Your task to perform on an android device: Open CNN.com Image 0: 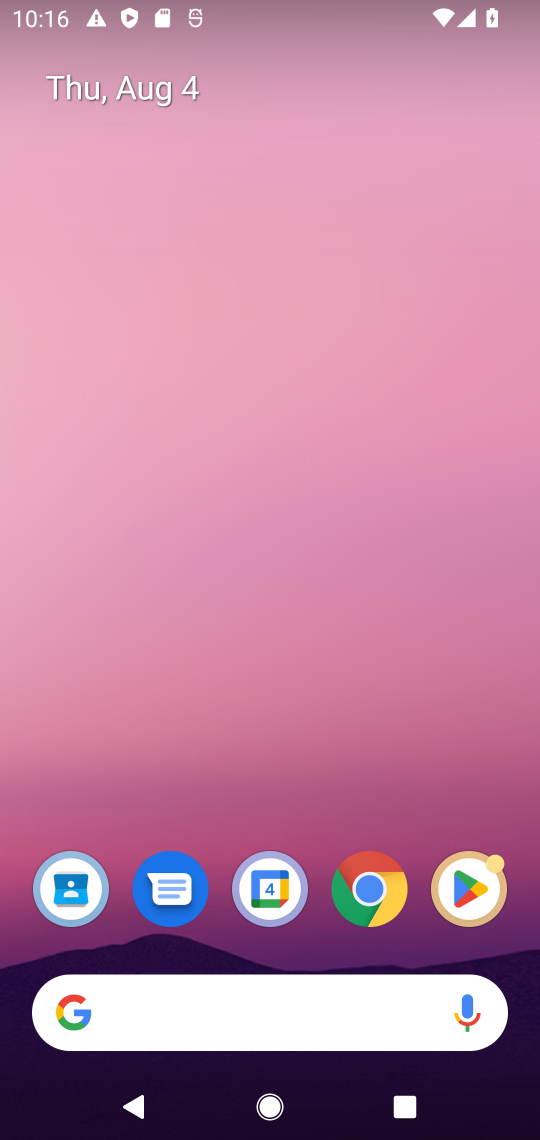
Step 0: press home button
Your task to perform on an android device: Open CNN.com Image 1: 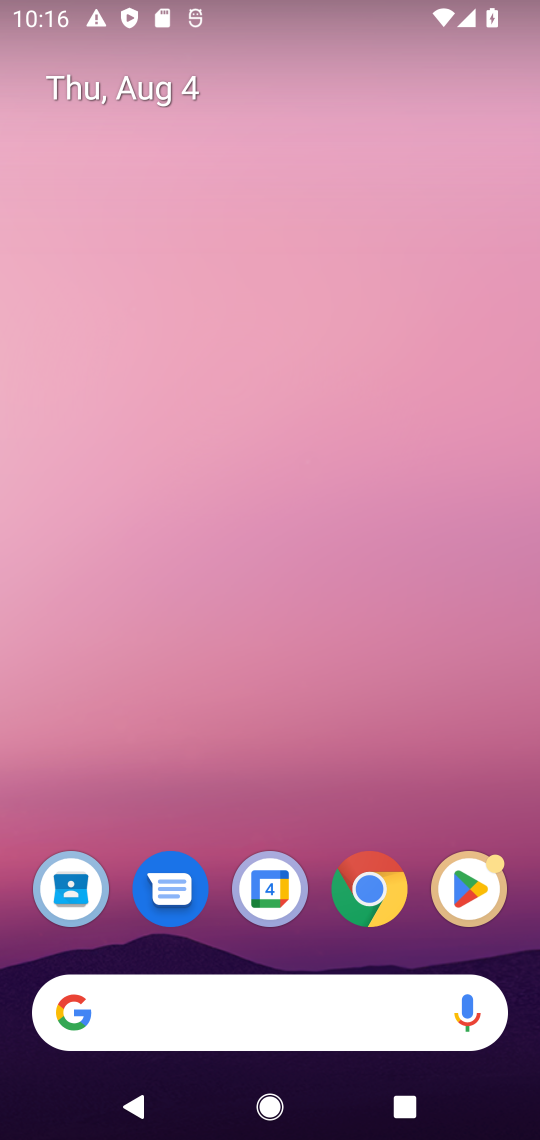
Step 1: drag from (297, 795) to (331, 188)
Your task to perform on an android device: Open CNN.com Image 2: 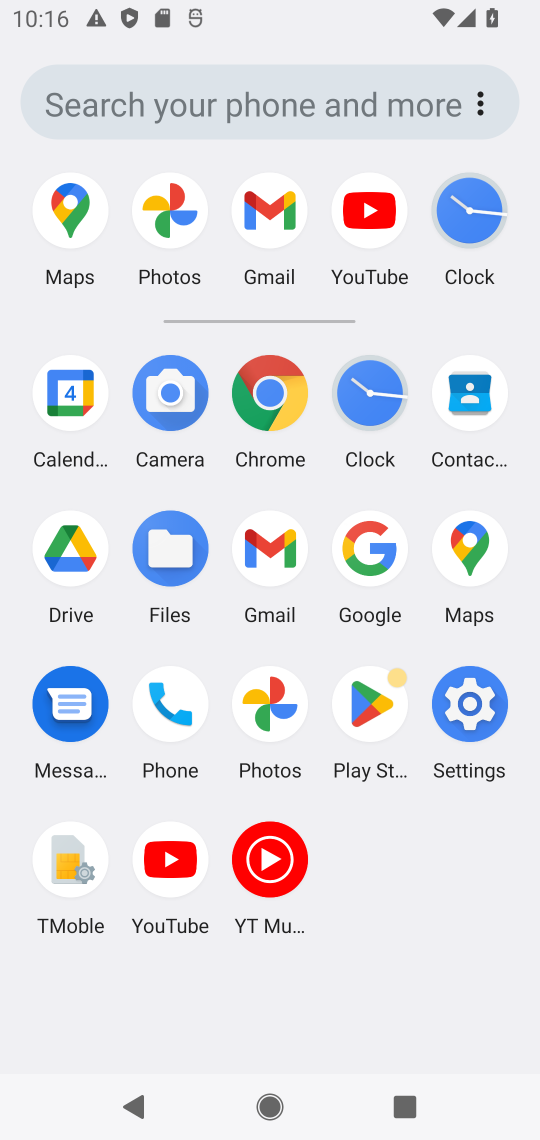
Step 2: click (284, 373)
Your task to perform on an android device: Open CNN.com Image 3: 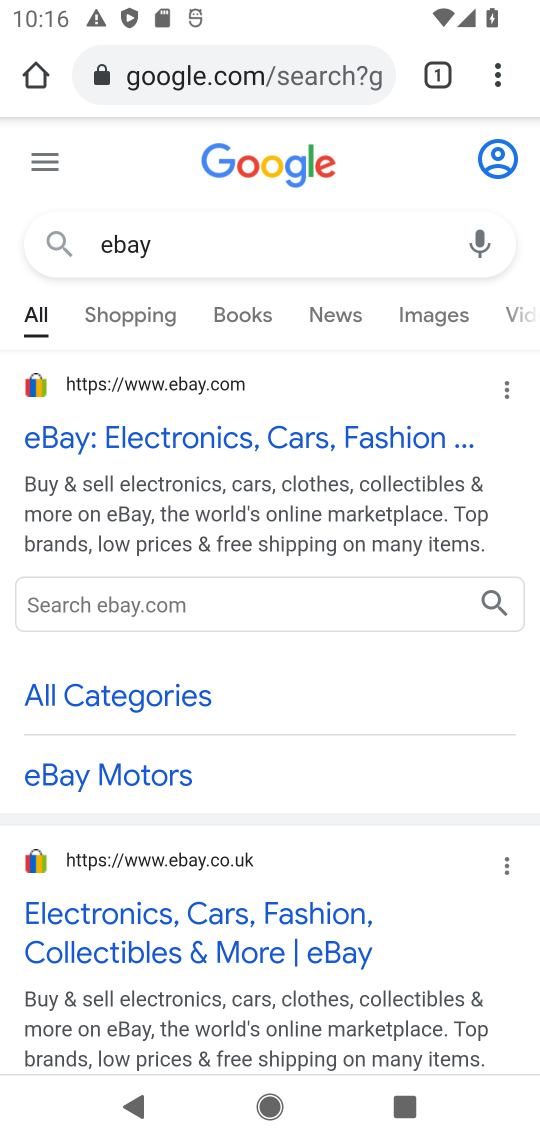
Step 3: click (292, 72)
Your task to perform on an android device: Open CNN.com Image 4: 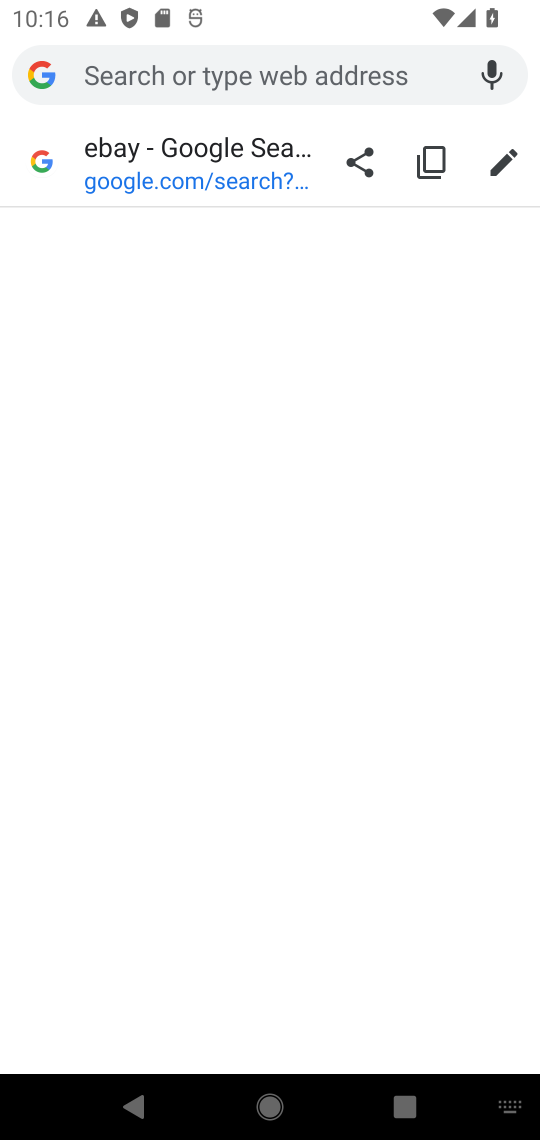
Step 4: type "cnn.com"
Your task to perform on an android device: Open CNN.com Image 5: 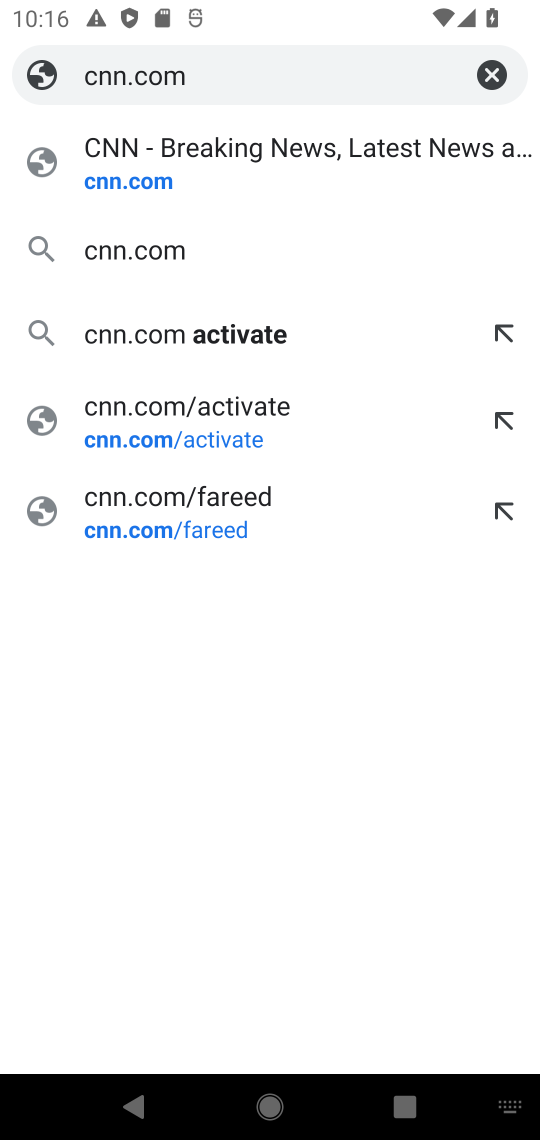
Step 5: click (237, 158)
Your task to perform on an android device: Open CNN.com Image 6: 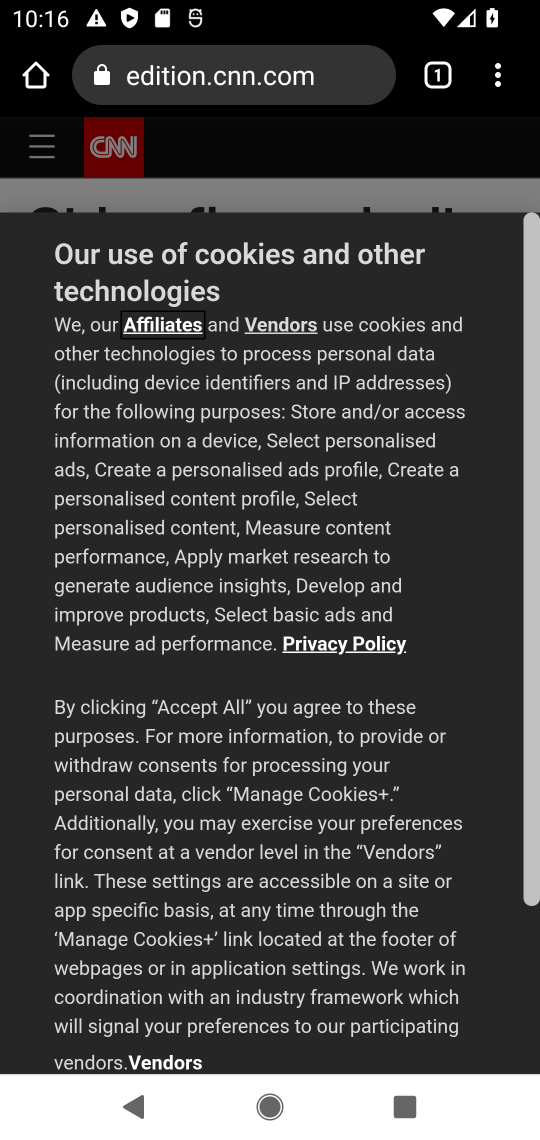
Step 6: task complete